Your task to perform on an android device: turn on improve location accuracy Image 0: 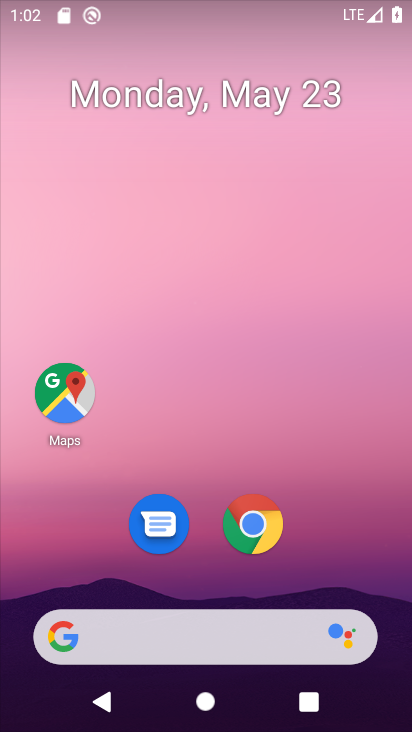
Step 0: drag from (275, 415) to (282, 0)
Your task to perform on an android device: turn on improve location accuracy Image 1: 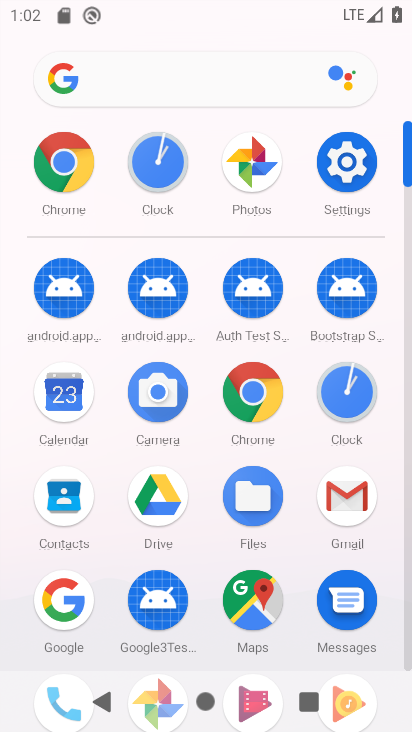
Step 1: click (350, 175)
Your task to perform on an android device: turn on improve location accuracy Image 2: 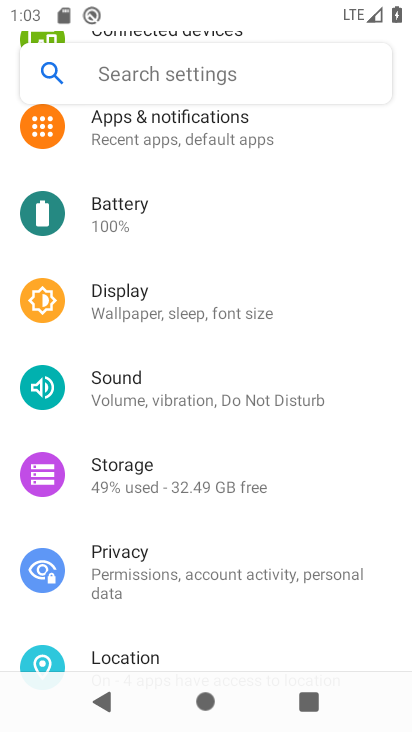
Step 2: drag from (218, 535) to (239, 312)
Your task to perform on an android device: turn on improve location accuracy Image 3: 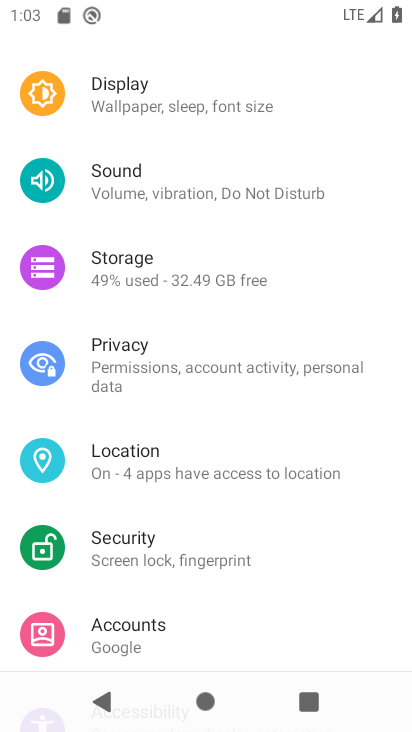
Step 3: click (205, 459)
Your task to perform on an android device: turn on improve location accuracy Image 4: 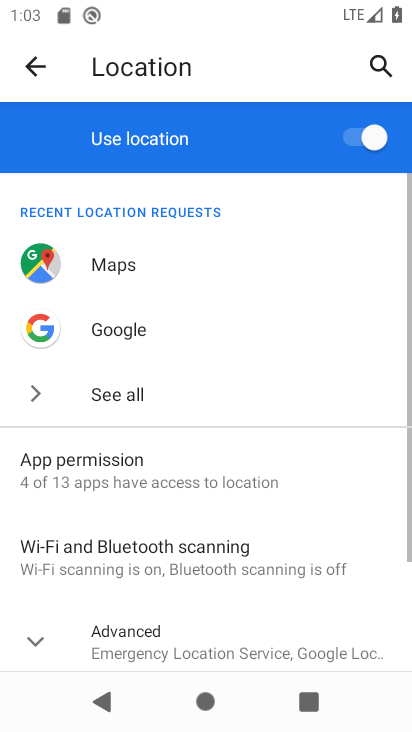
Step 4: click (37, 634)
Your task to perform on an android device: turn on improve location accuracy Image 5: 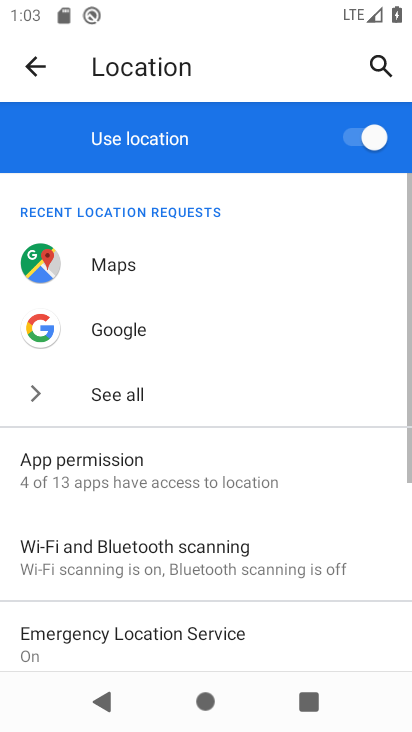
Step 5: drag from (259, 571) to (287, 175)
Your task to perform on an android device: turn on improve location accuracy Image 6: 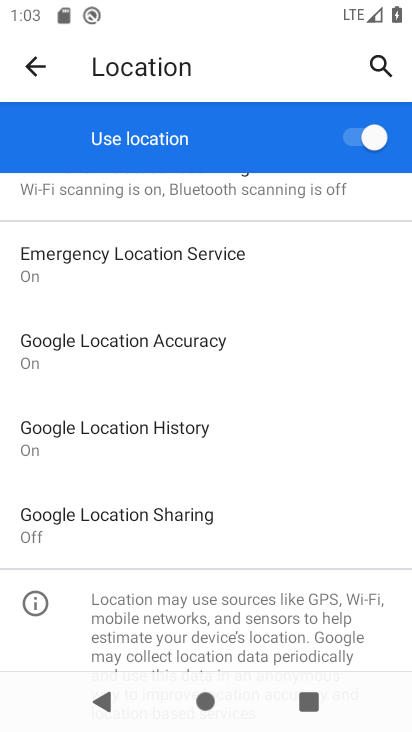
Step 6: click (240, 344)
Your task to perform on an android device: turn on improve location accuracy Image 7: 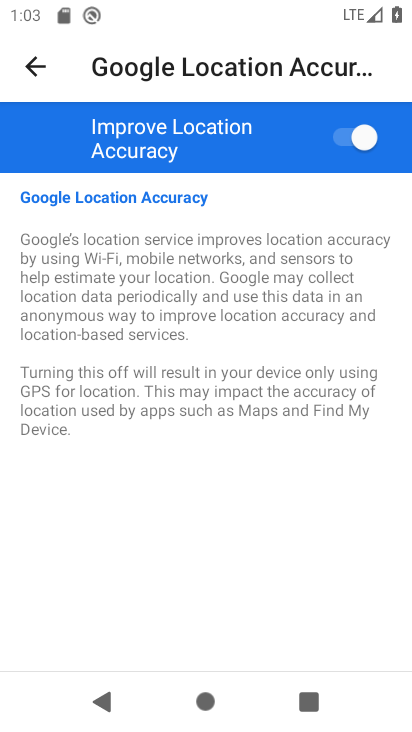
Step 7: task complete